Your task to perform on an android device: Search for a sofa on article.com Image 0: 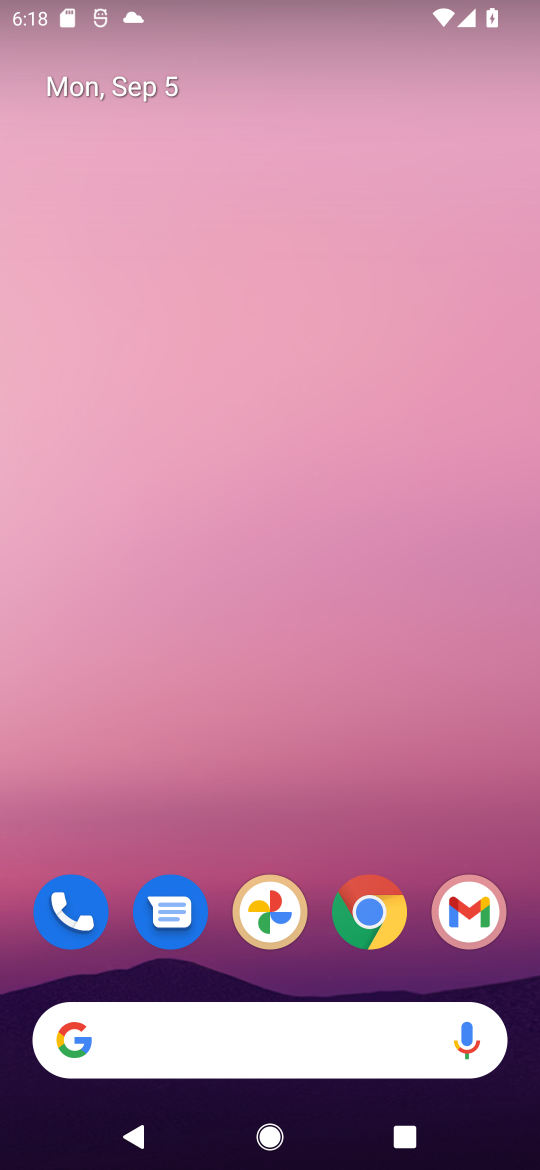
Step 0: click (367, 912)
Your task to perform on an android device: Search for a sofa on article.com Image 1: 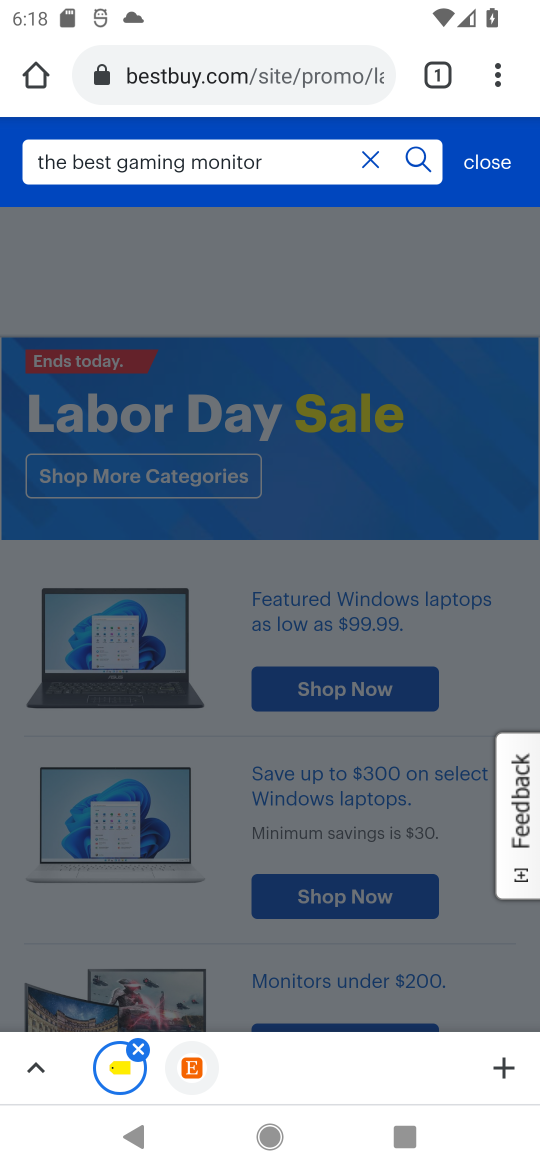
Step 1: click (297, 68)
Your task to perform on an android device: Search for a sofa on article.com Image 2: 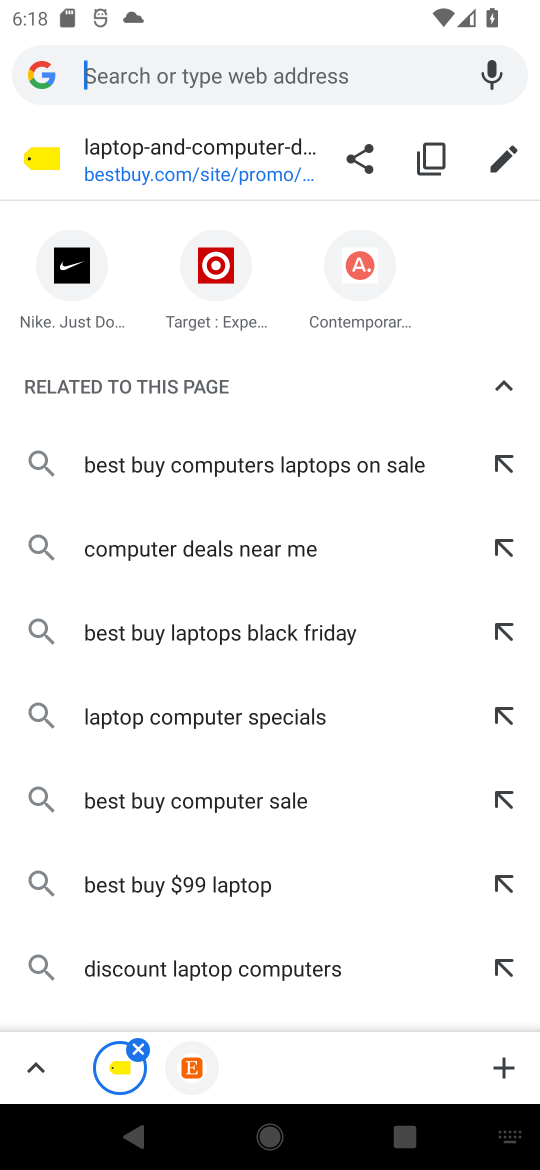
Step 2: type "Article.com"
Your task to perform on an android device: Search for a sofa on article.com Image 3: 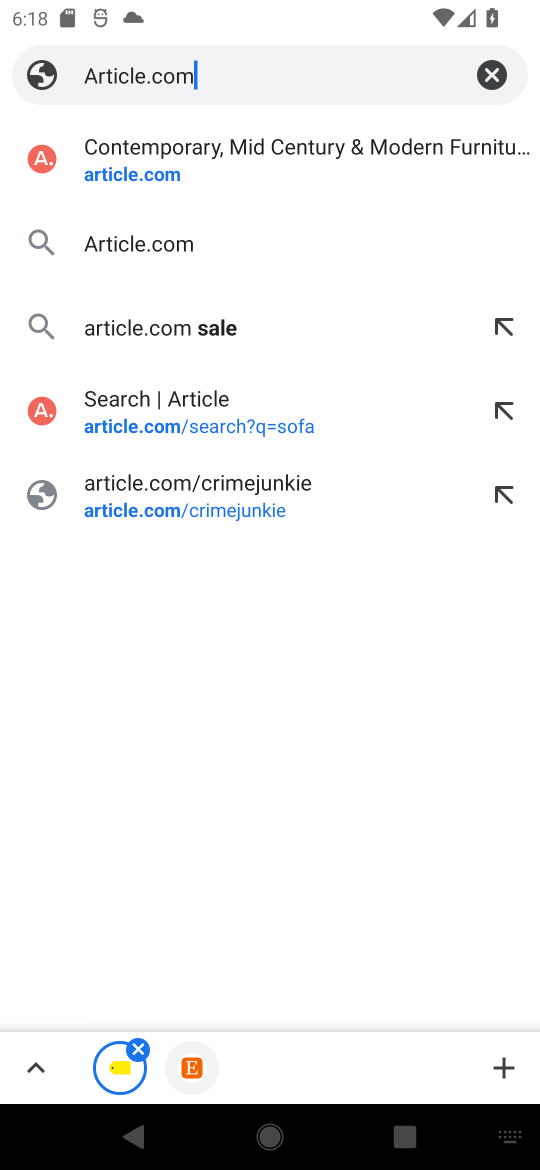
Step 3: click (150, 237)
Your task to perform on an android device: Search for a sofa on article.com Image 4: 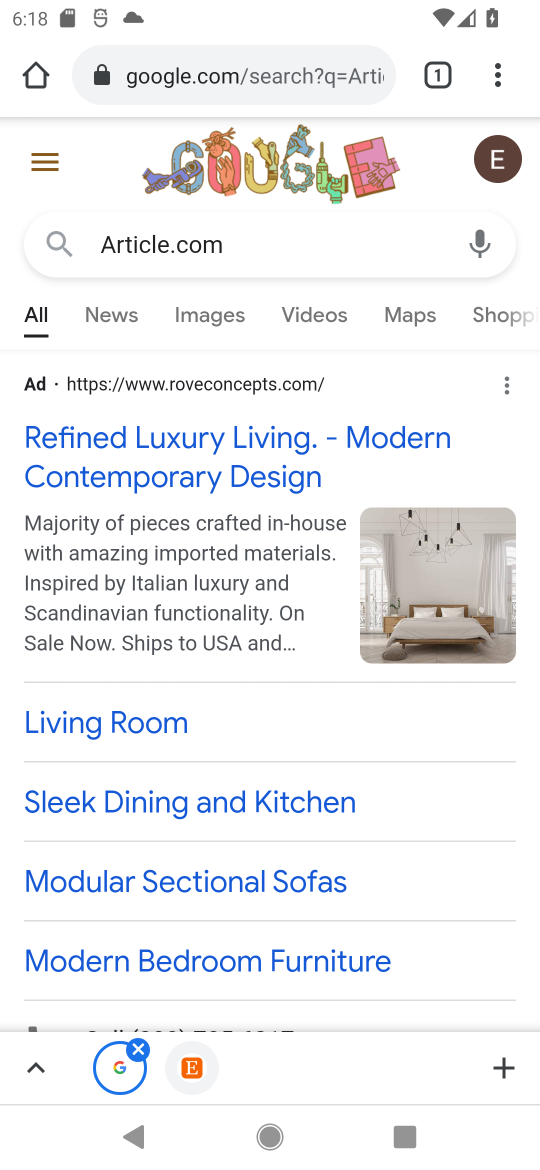
Step 4: drag from (277, 791) to (240, 406)
Your task to perform on an android device: Search for a sofa on article.com Image 5: 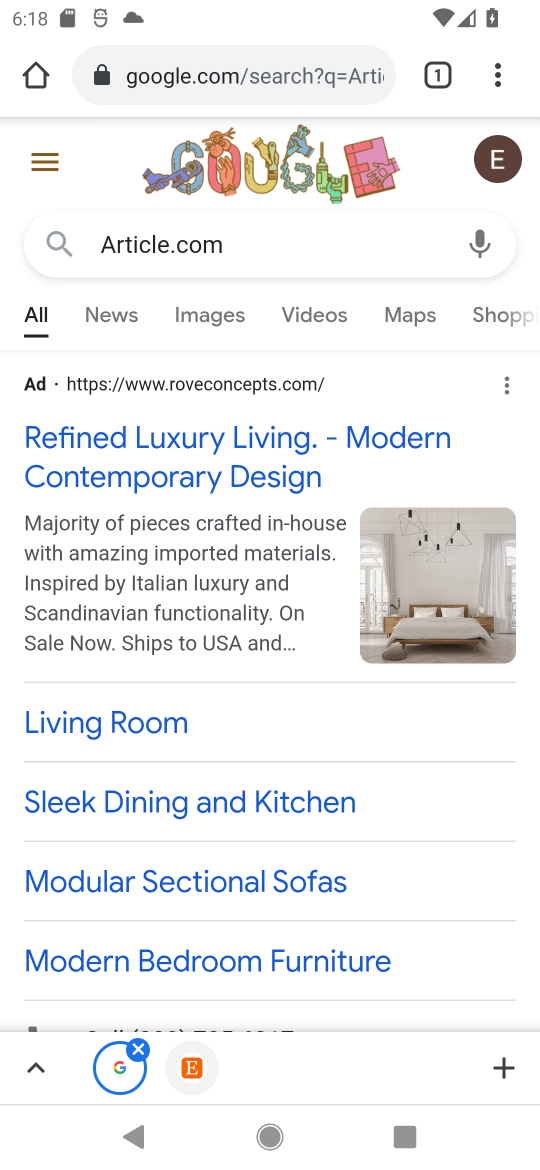
Step 5: drag from (229, 928) to (250, 491)
Your task to perform on an android device: Search for a sofa on article.com Image 6: 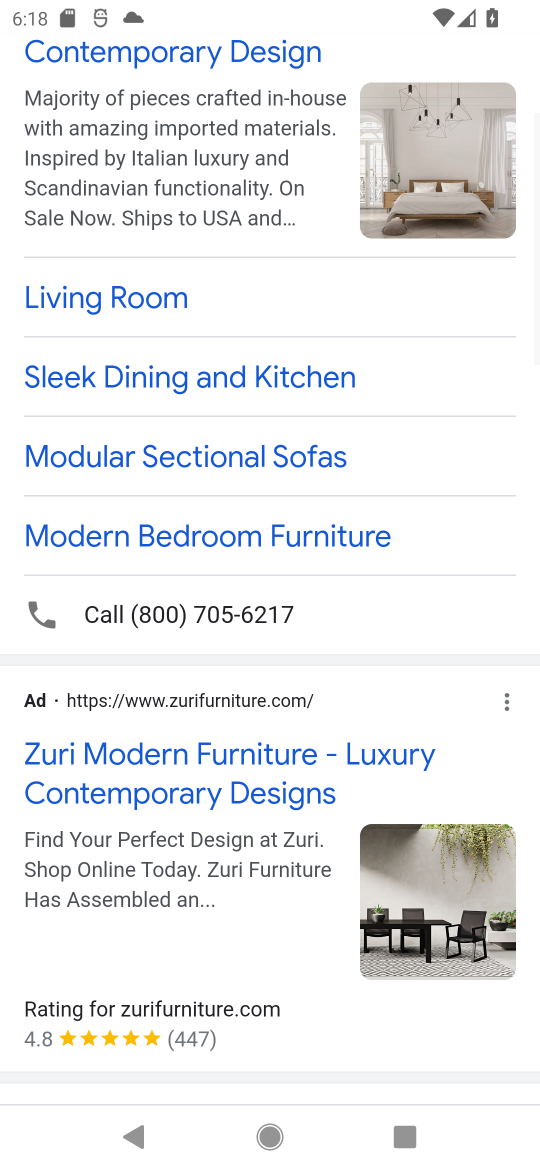
Step 6: drag from (229, 844) to (246, 402)
Your task to perform on an android device: Search for a sofa on article.com Image 7: 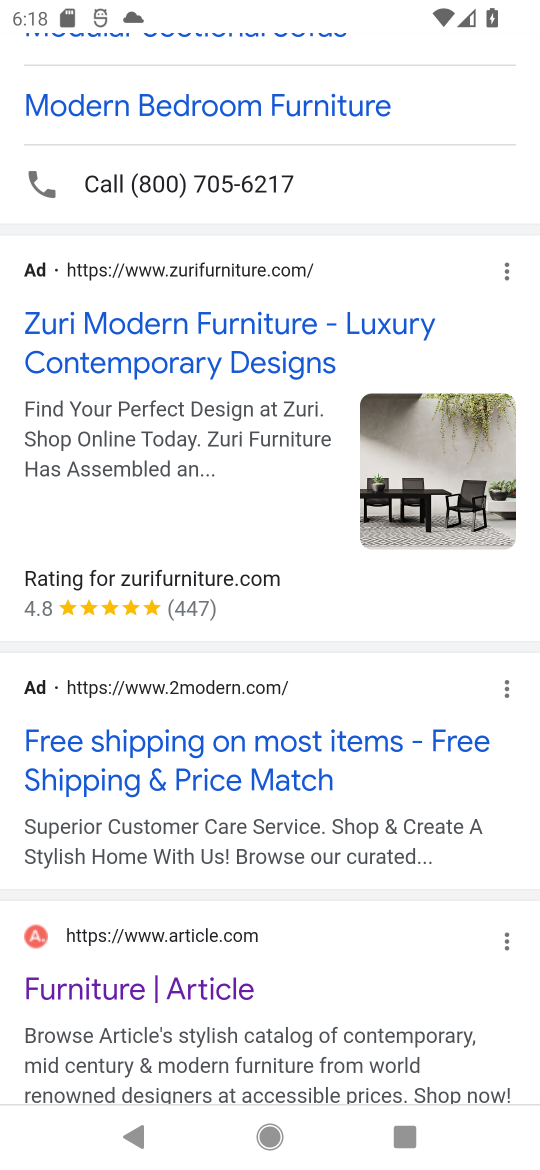
Step 7: click (201, 971)
Your task to perform on an android device: Search for a sofa on article.com Image 8: 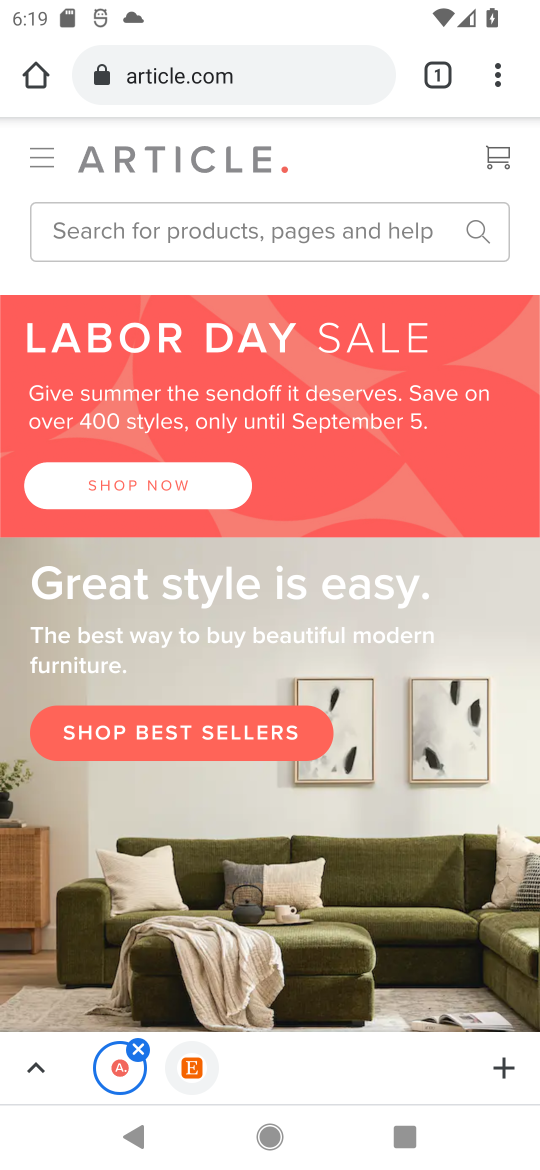
Step 8: click (314, 228)
Your task to perform on an android device: Search for a sofa on article.com Image 9: 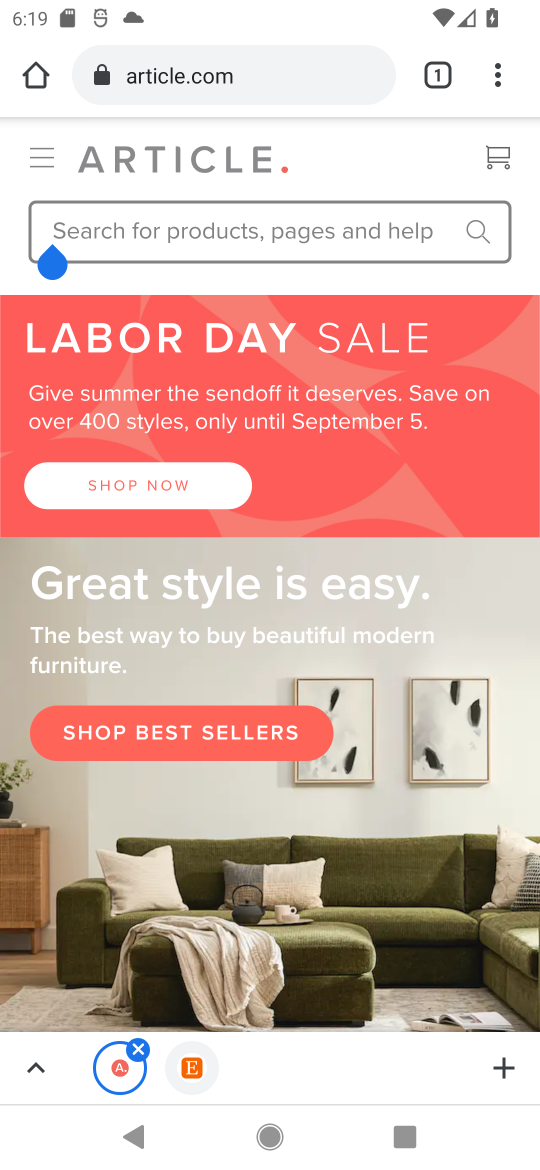
Step 9: type "a sofa"
Your task to perform on an android device: Search for a sofa on article.com Image 10: 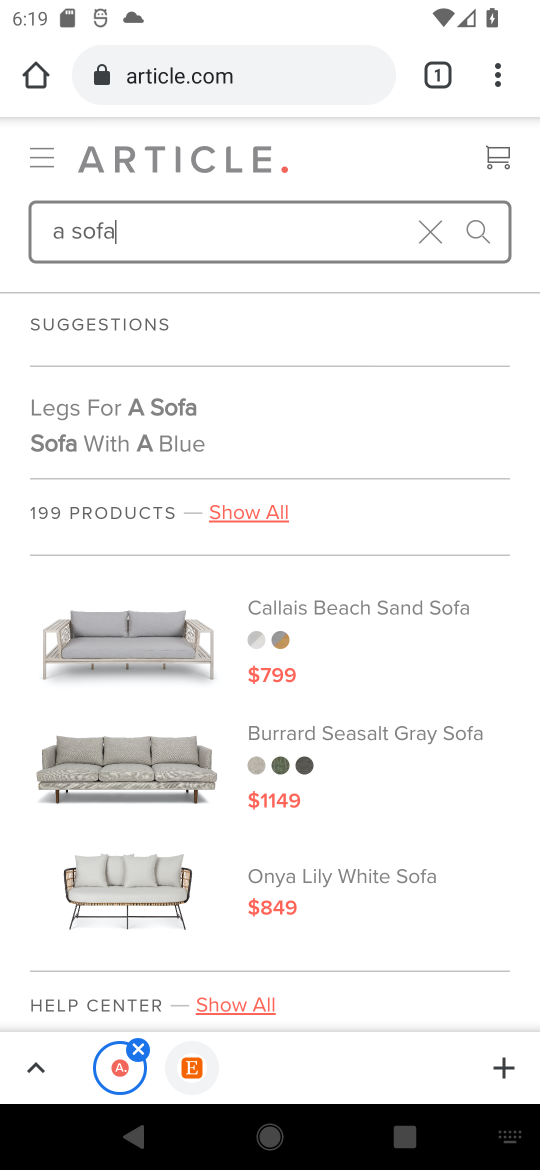
Step 10: click (484, 237)
Your task to perform on an android device: Search for a sofa on article.com Image 11: 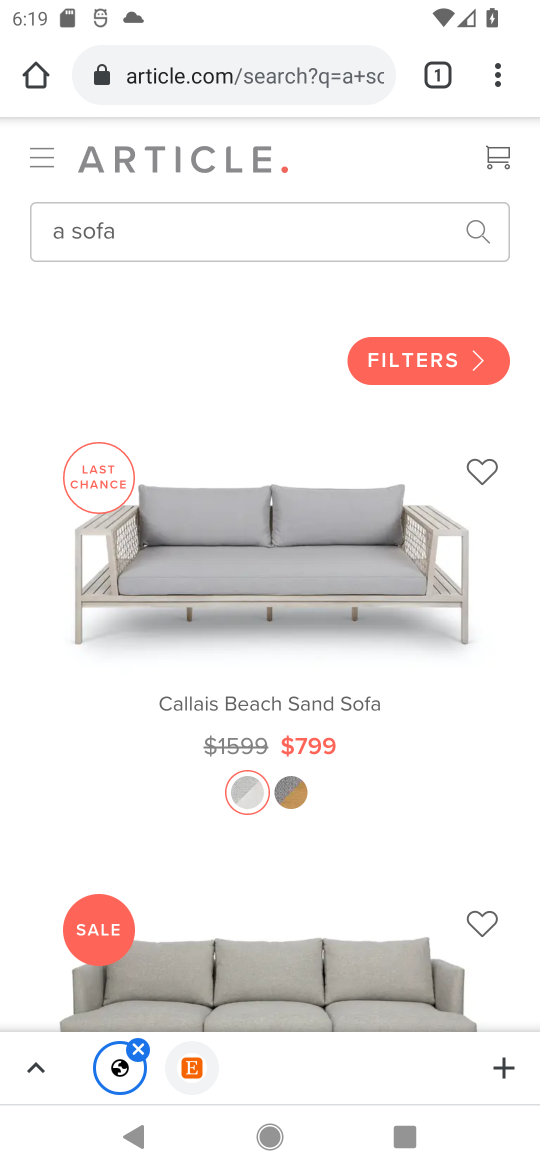
Step 11: task complete